Your task to perform on an android device: Clear the shopping cart on newegg. Search for "apple airpods pro" on newegg, select the first entry, add it to the cart, then select checkout. Image 0: 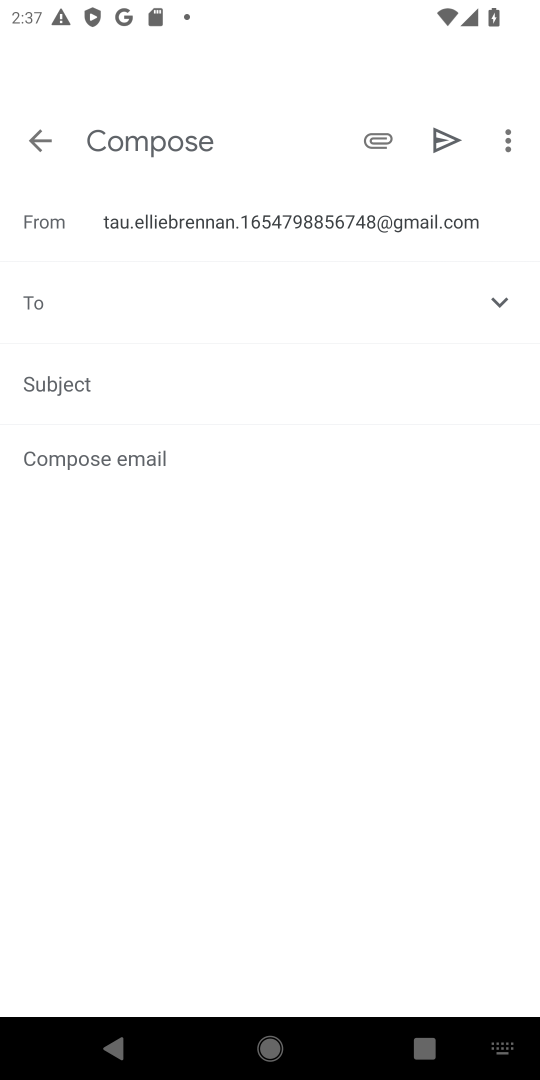
Step 0: press home button
Your task to perform on an android device: Clear the shopping cart on newegg. Search for "apple airpods pro" on newegg, select the first entry, add it to the cart, then select checkout. Image 1: 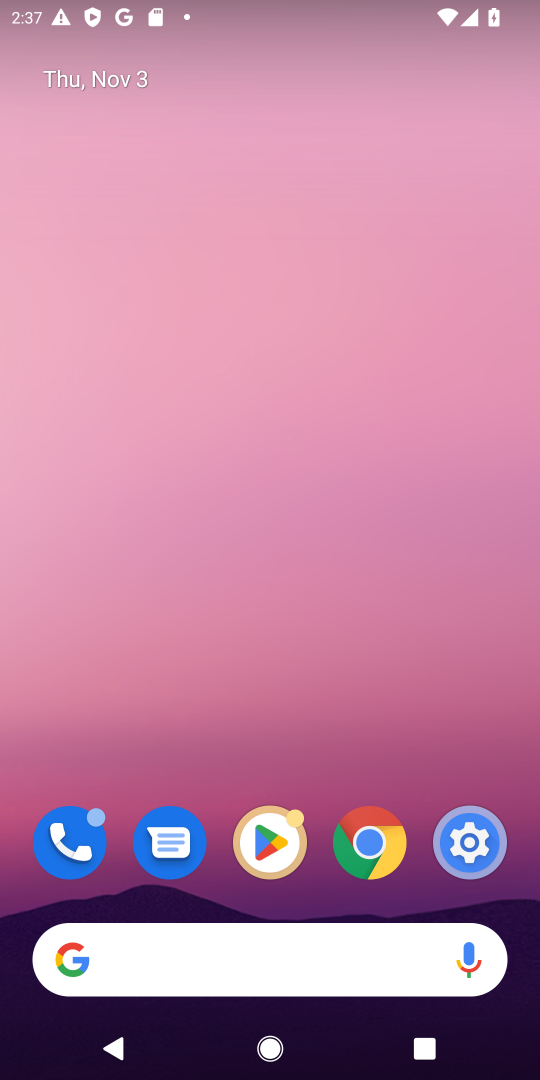
Step 1: click (112, 954)
Your task to perform on an android device: Clear the shopping cart on newegg. Search for "apple airpods pro" on newegg, select the first entry, add it to the cart, then select checkout. Image 2: 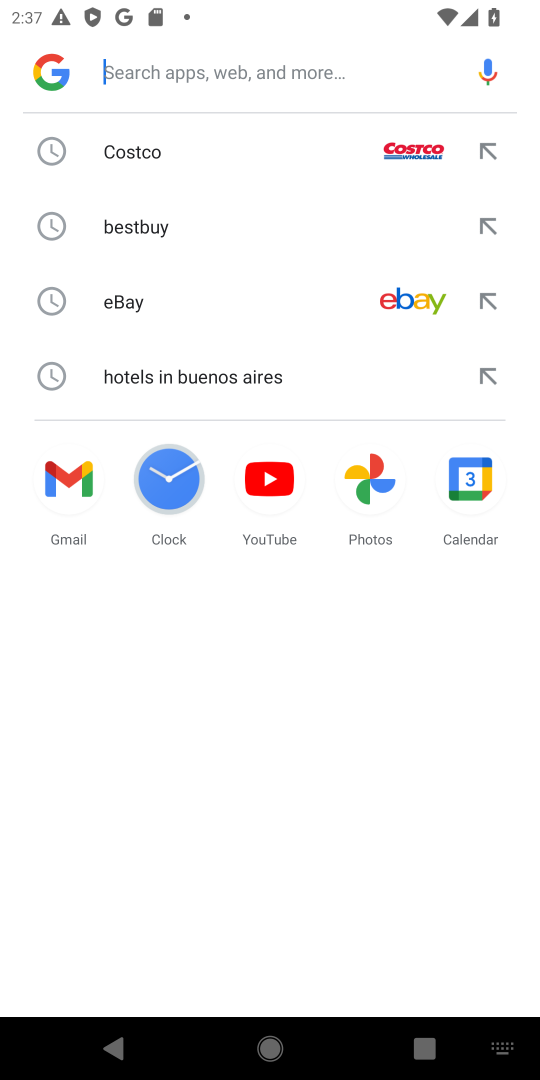
Step 2: type "newegg"
Your task to perform on an android device: Clear the shopping cart on newegg. Search for "apple airpods pro" on newegg, select the first entry, add it to the cart, then select checkout. Image 3: 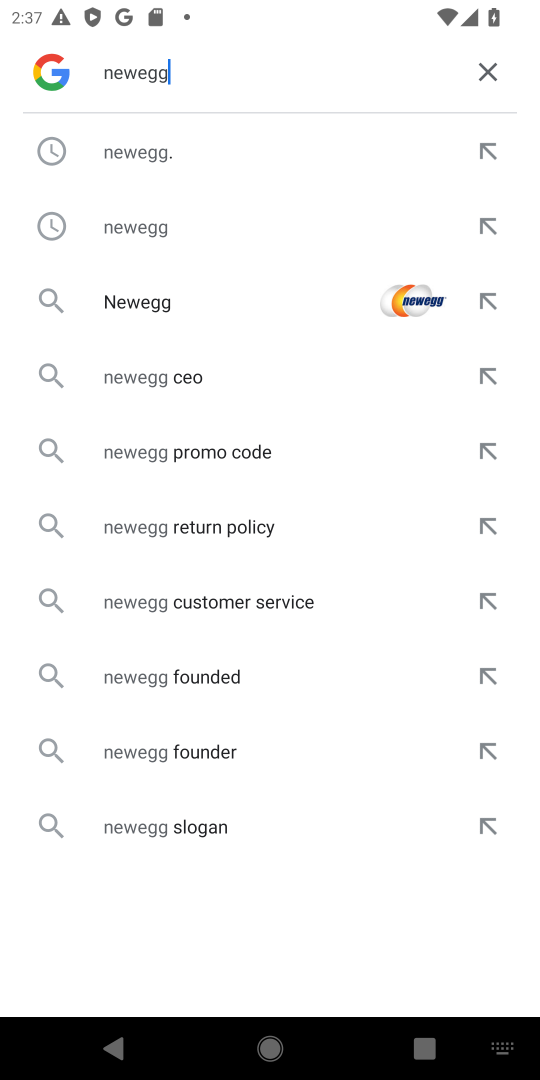
Step 3: press enter
Your task to perform on an android device: Clear the shopping cart on newegg. Search for "apple airpods pro" on newegg, select the first entry, add it to the cart, then select checkout. Image 4: 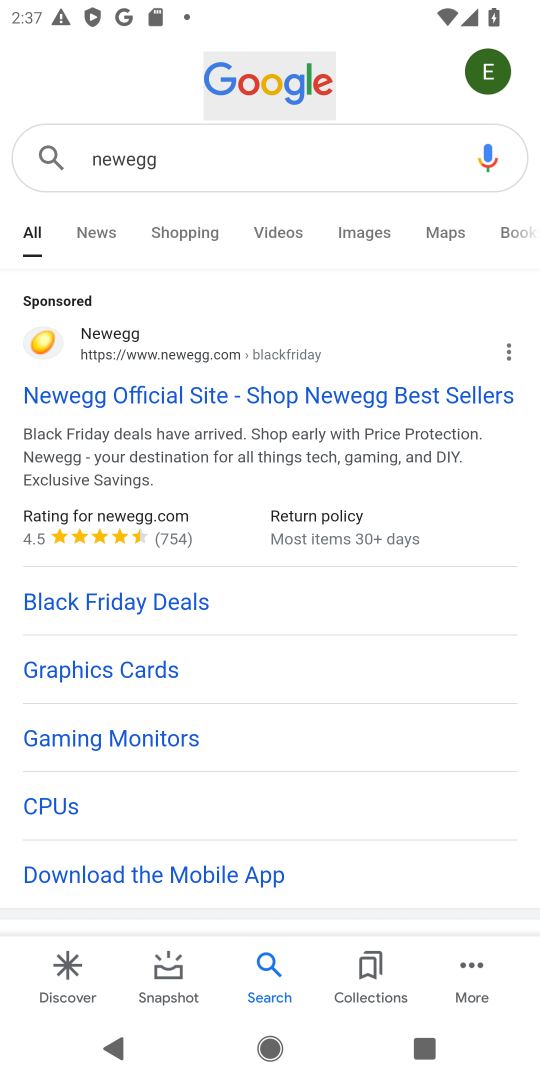
Step 4: click (173, 398)
Your task to perform on an android device: Clear the shopping cart on newegg. Search for "apple airpods pro" on newegg, select the first entry, add it to the cart, then select checkout. Image 5: 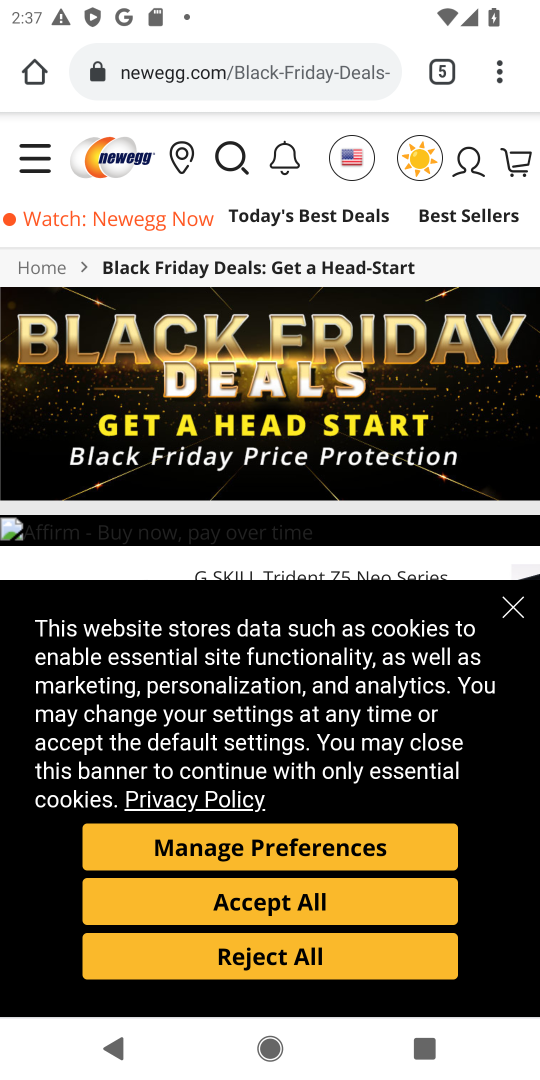
Step 5: click (514, 603)
Your task to perform on an android device: Clear the shopping cart on newegg. Search for "apple airpods pro" on newegg, select the first entry, add it to the cart, then select checkout. Image 6: 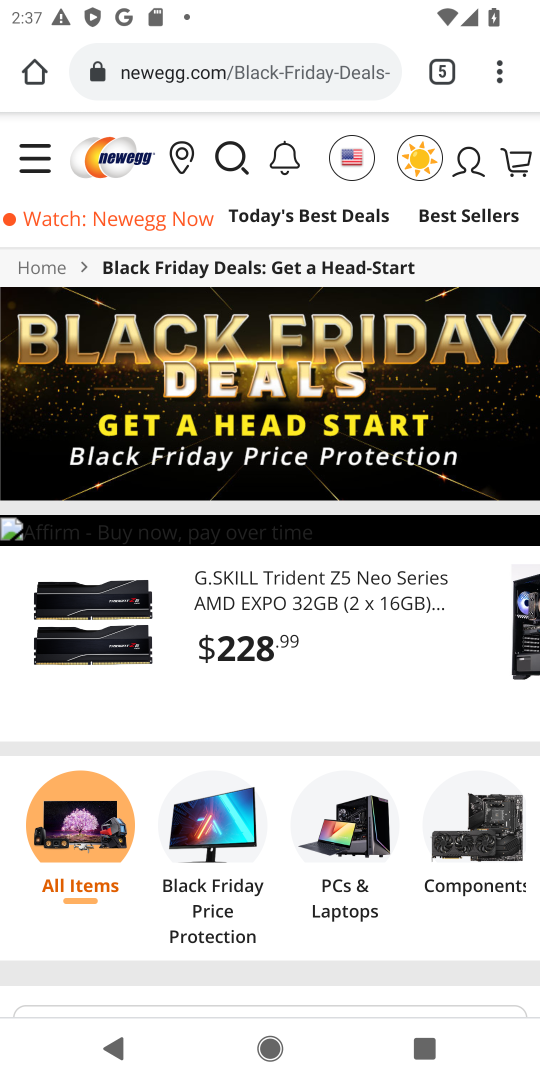
Step 6: click (232, 150)
Your task to perform on an android device: Clear the shopping cart on newegg. Search for "apple airpods pro" on newegg, select the first entry, add it to the cart, then select checkout. Image 7: 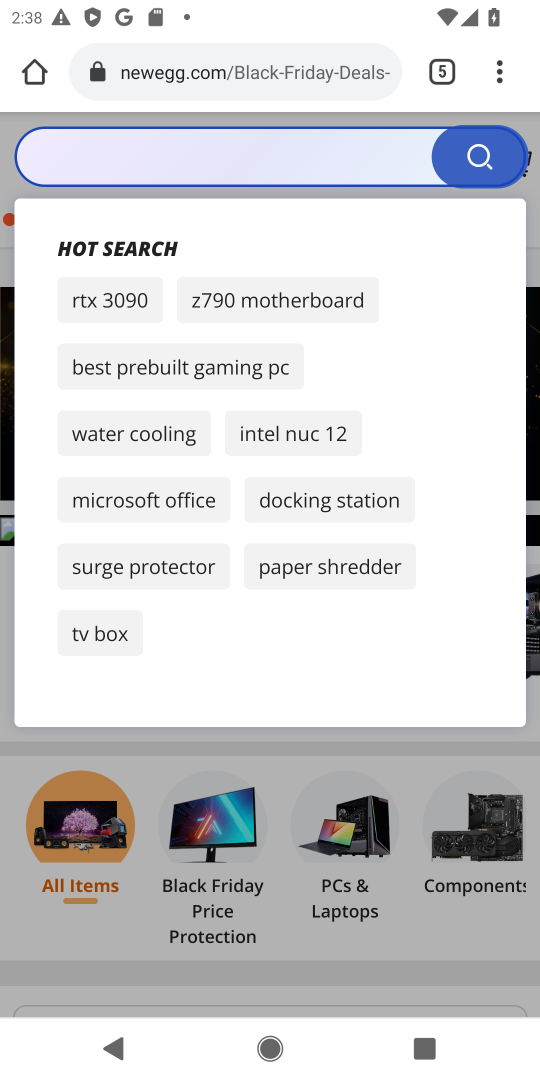
Step 7: type "apple airpods pro"
Your task to perform on an android device: Clear the shopping cart on newegg. Search for "apple airpods pro" on newegg, select the first entry, add it to the cart, then select checkout. Image 8: 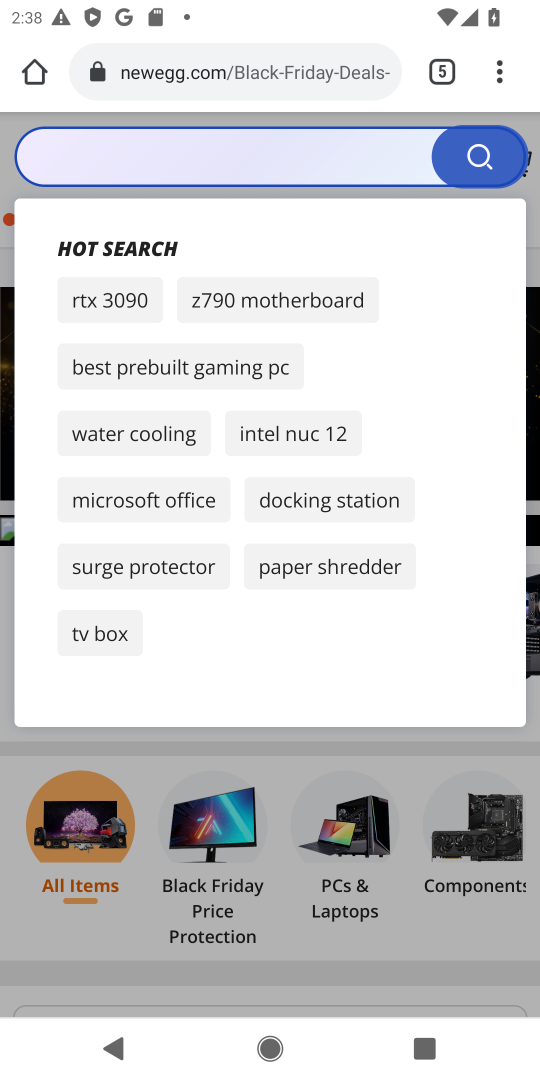
Step 8: press enter
Your task to perform on an android device: Clear the shopping cart on newegg. Search for "apple airpods pro" on newegg, select the first entry, add it to the cart, then select checkout. Image 9: 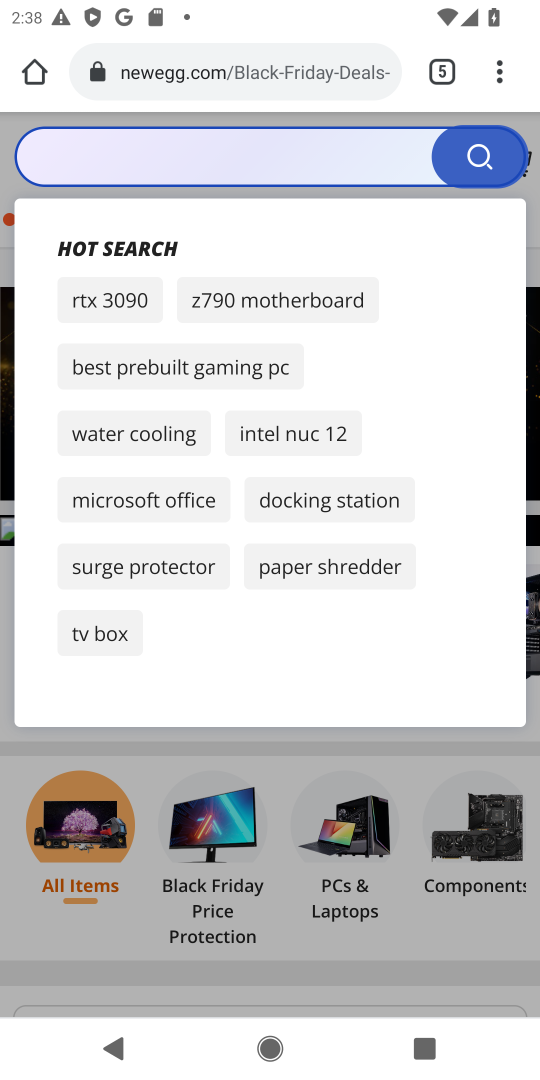
Step 9: click (87, 154)
Your task to perform on an android device: Clear the shopping cart on newegg. Search for "apple airpods pro" on newegg, select the first entry, add it to the cart, then select checkout. Image 10: 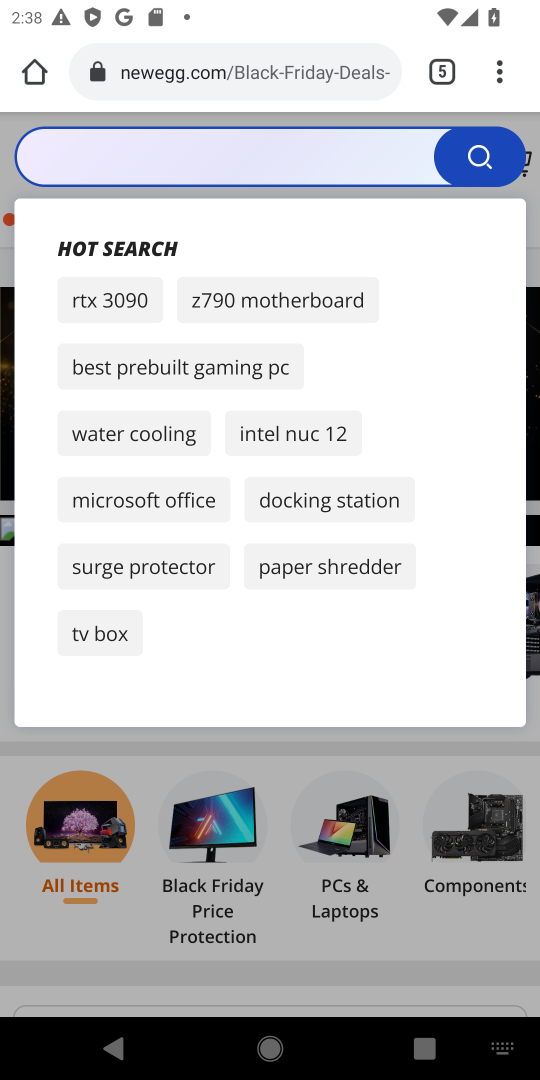
Step 10: type "apple airpods pro"
Your task to perform on an android device: Clear the shopping cart on newegg. Search for "apple airpods pro" on newegg, select the first entry, add it to the cart, then select checkout. Image 11: 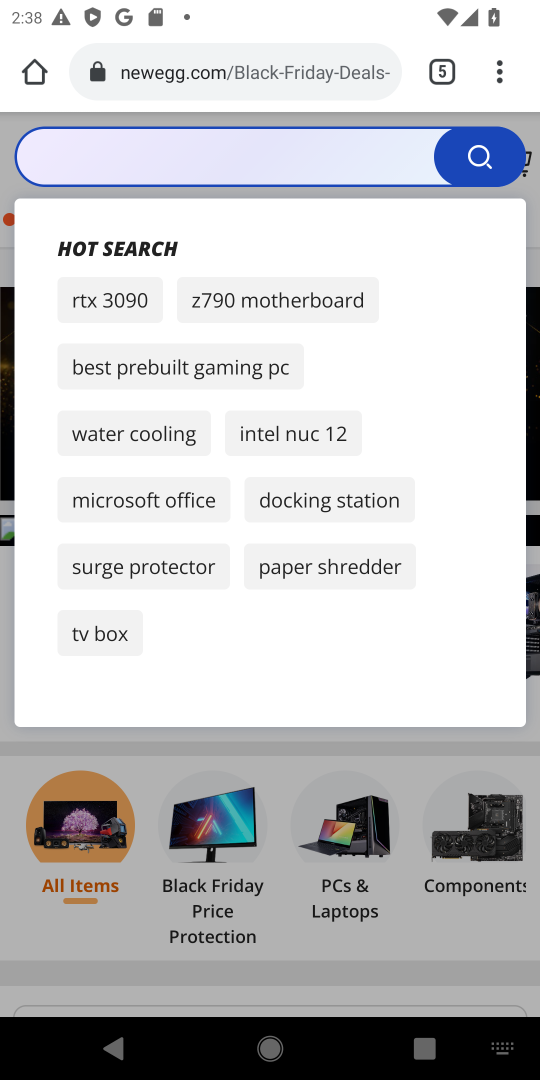
Step 11: press enter
Your task to perform on an android device: Clear the shopping cart on newegg. Search for "apple airpods pro" on newegg, select the first entry, add it to the cart, then select checkout. Image 12: 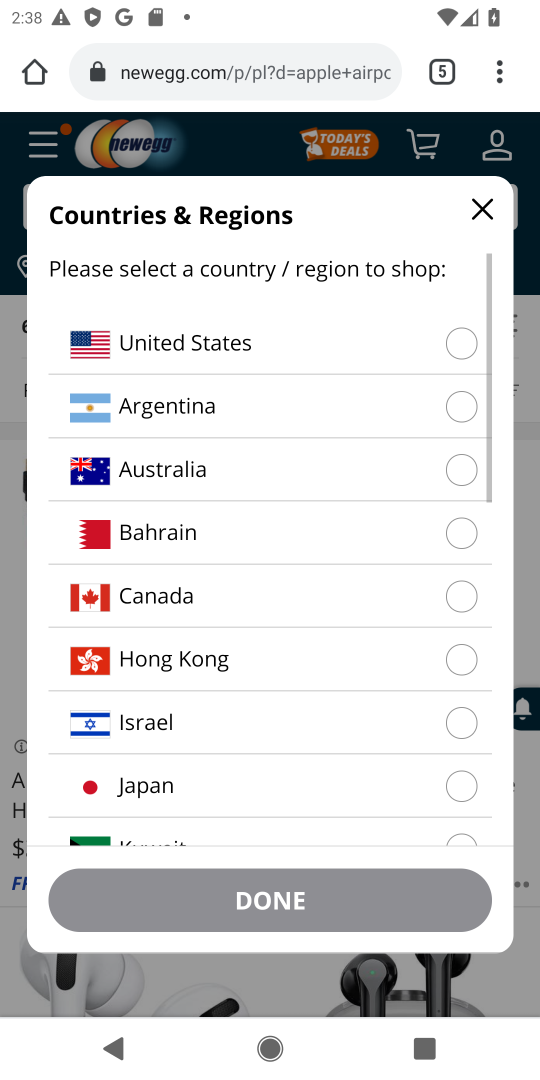
Step 12: click (483, 208)
Your task to perform on an android device: Clear the shopping cart on newegg. Search for "apple airpods pro" on newegg, select the first entry, add it to the cart, then select checkout. Image 13: 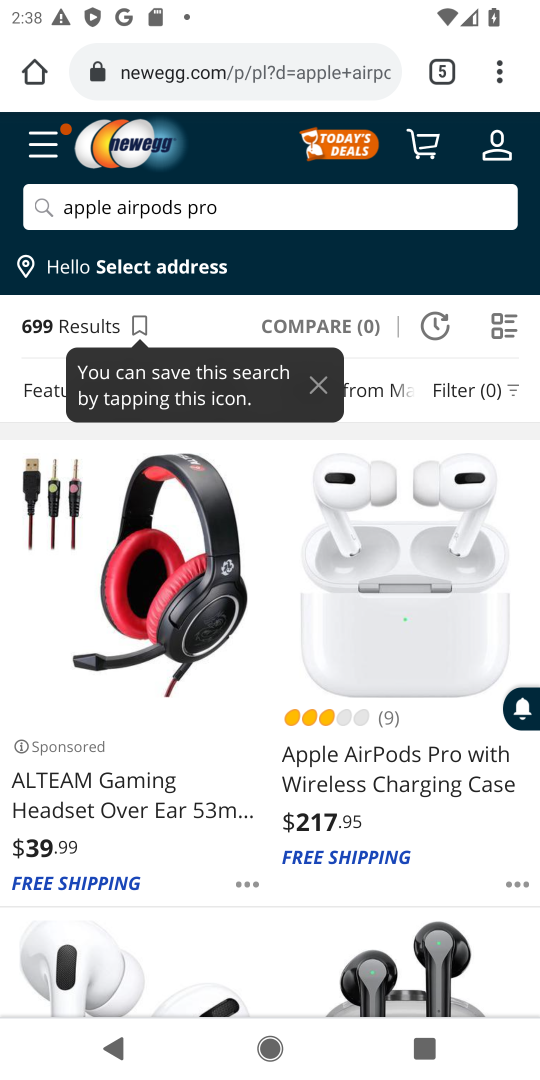
Step 13: click (347, 762)
Your task to perform on an android device: Clear the shopping cart on newegg. Search for "apple airpods pro" on newegg, select the first entry, add it to the cart, then select checkout. Image 14: 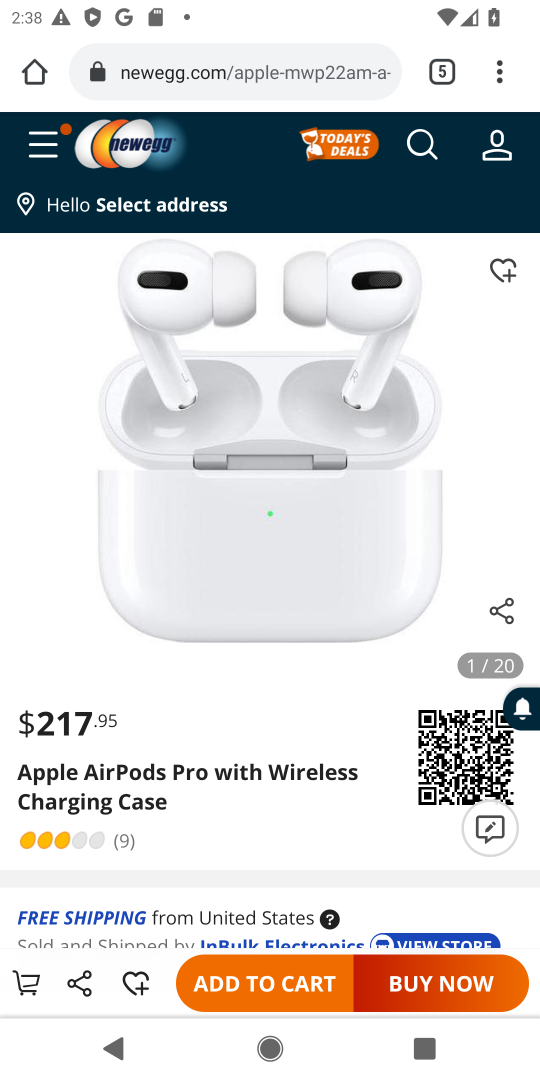
Step 14: click (246, 991)
Your task to perform on an android device: Clear the shopping cart on newegg. Search for "apple airpods pro" on newegg, select the first entry, add it to the cart, then select checkout. Image 15: 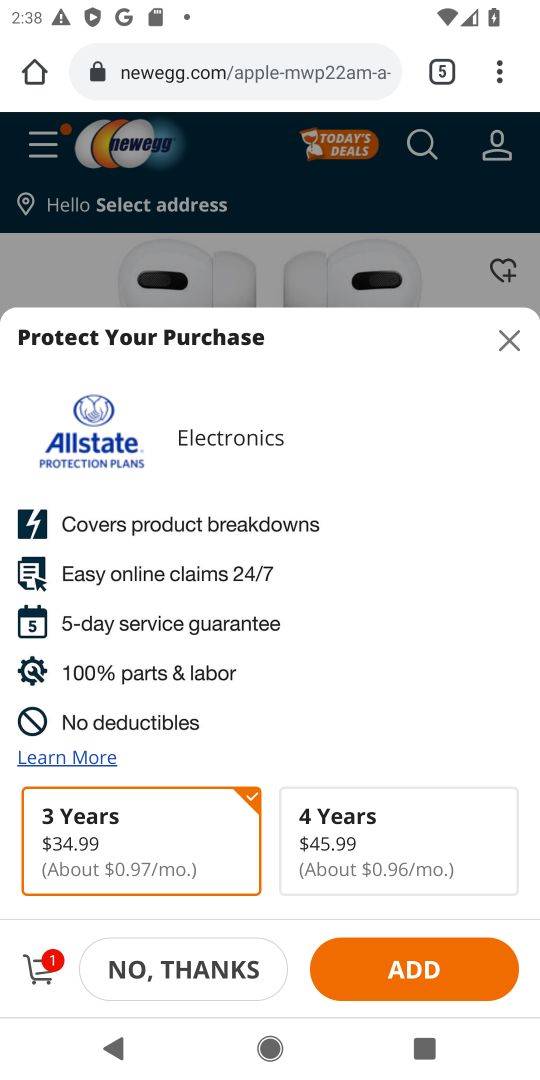
Step 15: click (135, 967)
Your task to perform on an android device: Clear the shopping cart on newegg. Search for "apple airpods pro" on newegg, select the first entry, add it to the cart, then select checkout. Image 16: 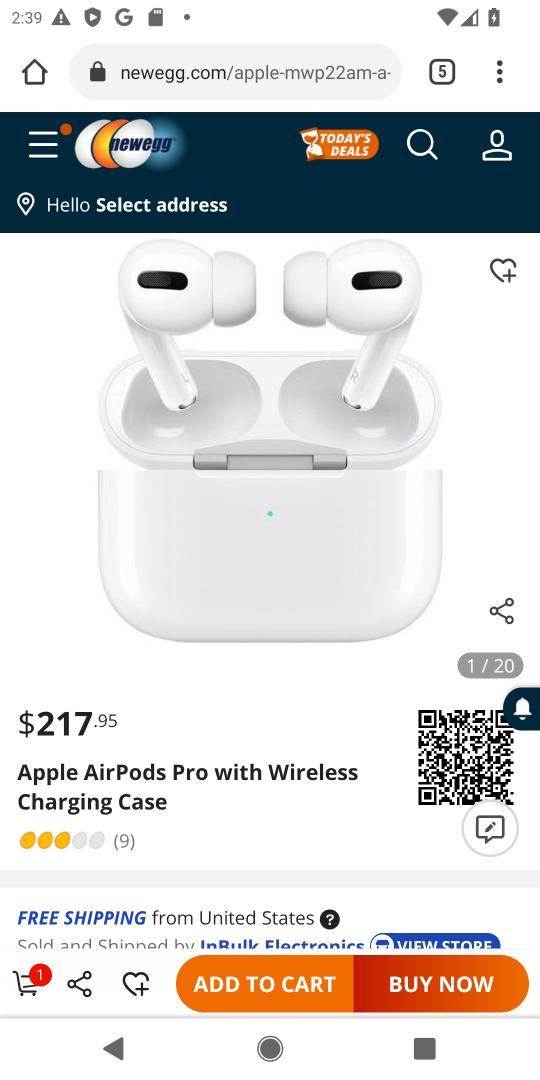
Step 16: click (26, 983)
Your task to perform on an android device: Clear the shopping cart on newegg. Search for "apple airpods pro" on newegg, select the first entry, add it to the cart, then select checkout. Image 17: 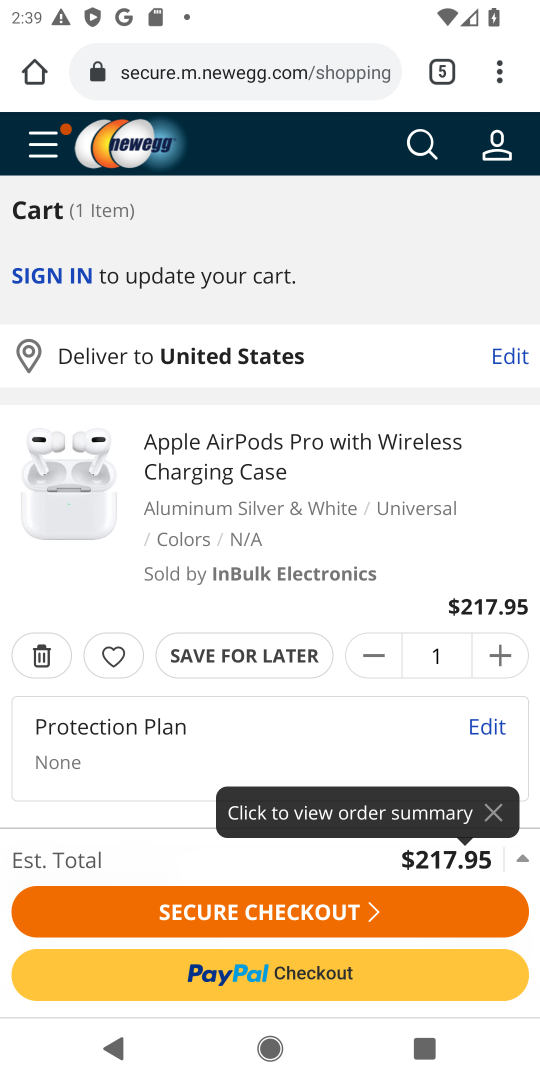
Step 17: click (232, 918)
Your task to perform on an android device: Clear the shopping cart on newegg. Search for "apple airpods pro" on newegg, select the first entry, add it to the cart, then select checkout. Image 18: 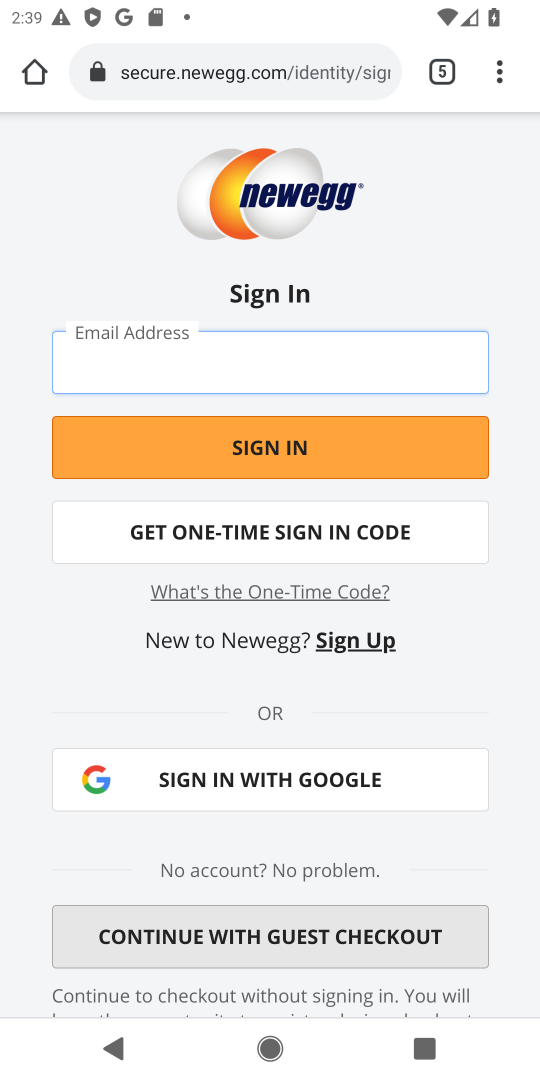
Step 18: task complete